Your task to perform on an android device: What's the weather? Image 0: 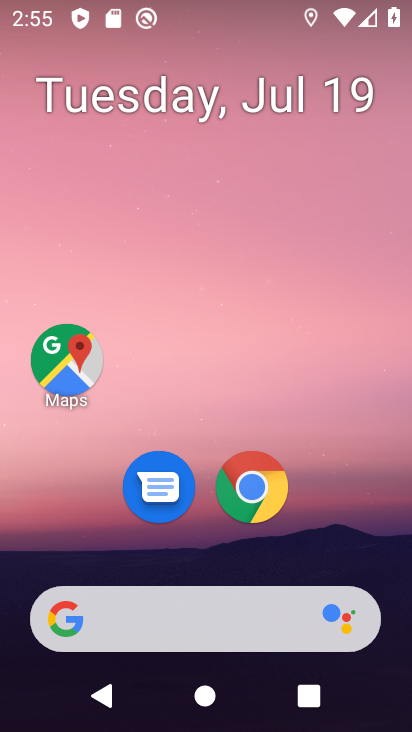
Step 0: click (138, 603)
Your task to perform on an android device: What's the weather? Image 1: 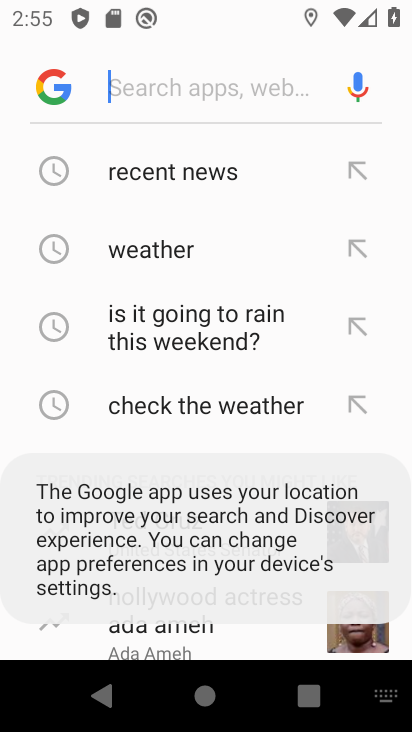
Step 1: click (135, 232)
Your task to perform on an android device: What's the weather? Image 2: 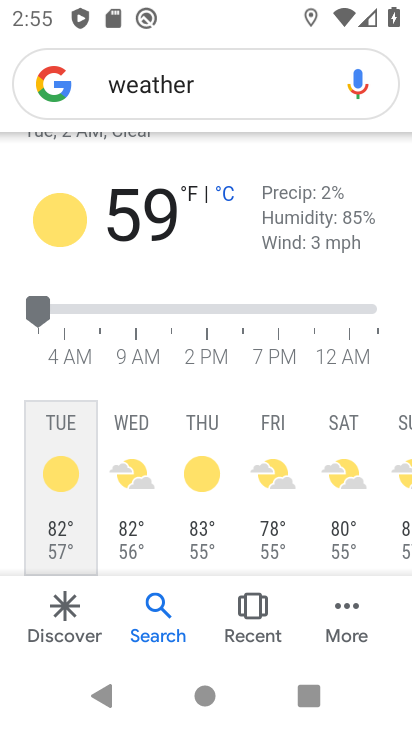
Step 2: task complete